Your task to perform on an android device: What is the news today? Image 0: 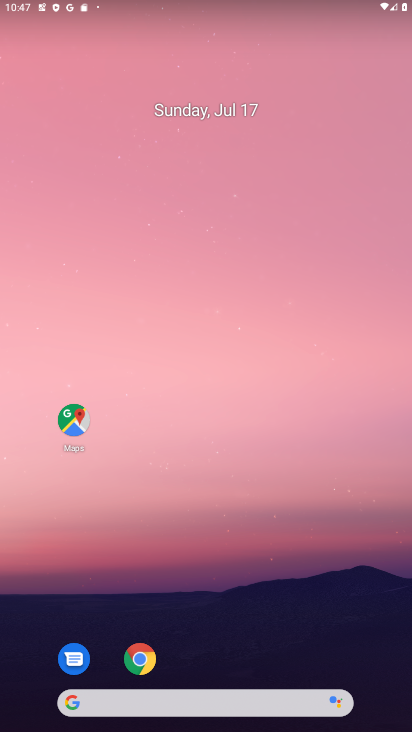
Step 0: click (277, 713)
Your task to perform on an android device: What is the news today? Image 1: 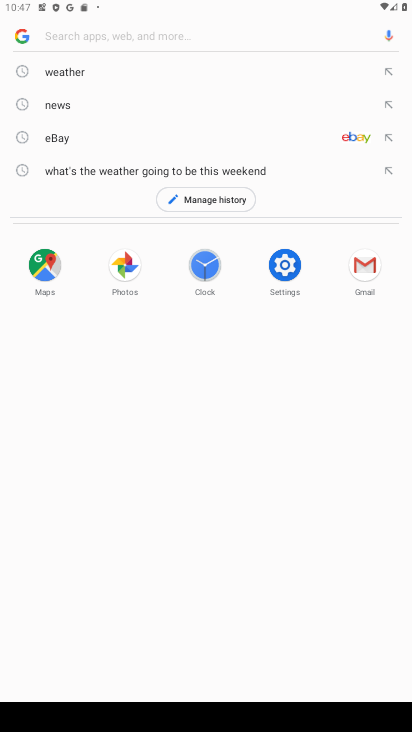
Step 1: click (57, 107)
Your task to perform on an android device: What is the news today? Image 2: 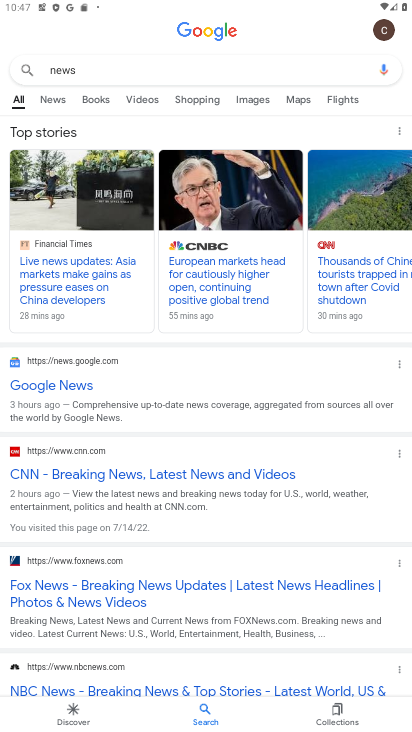
Step 2: task complete